Your task to perform on an android device: turn on airplane mode Image 0: 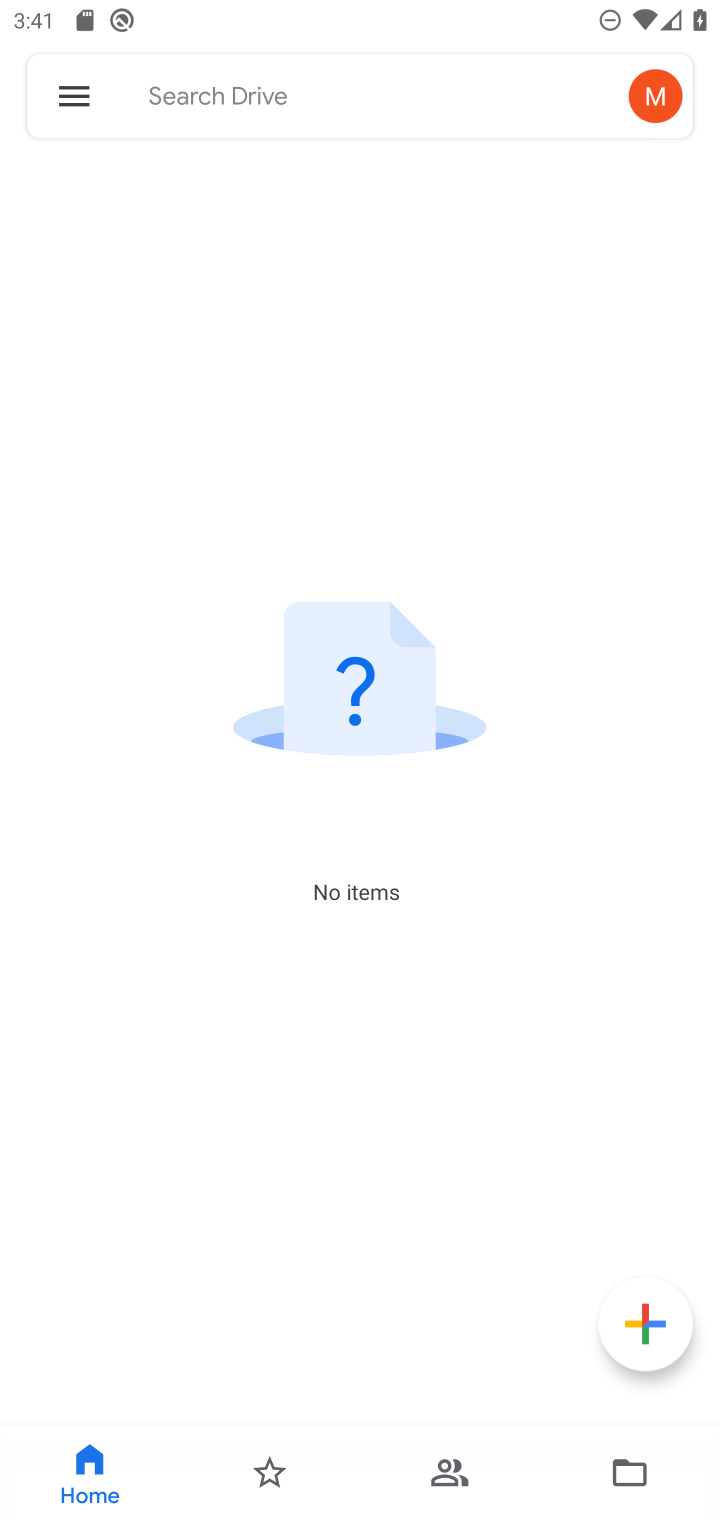
Step 0: press home button
Your task to perform on an android device: turn on airplane mode Image 1: 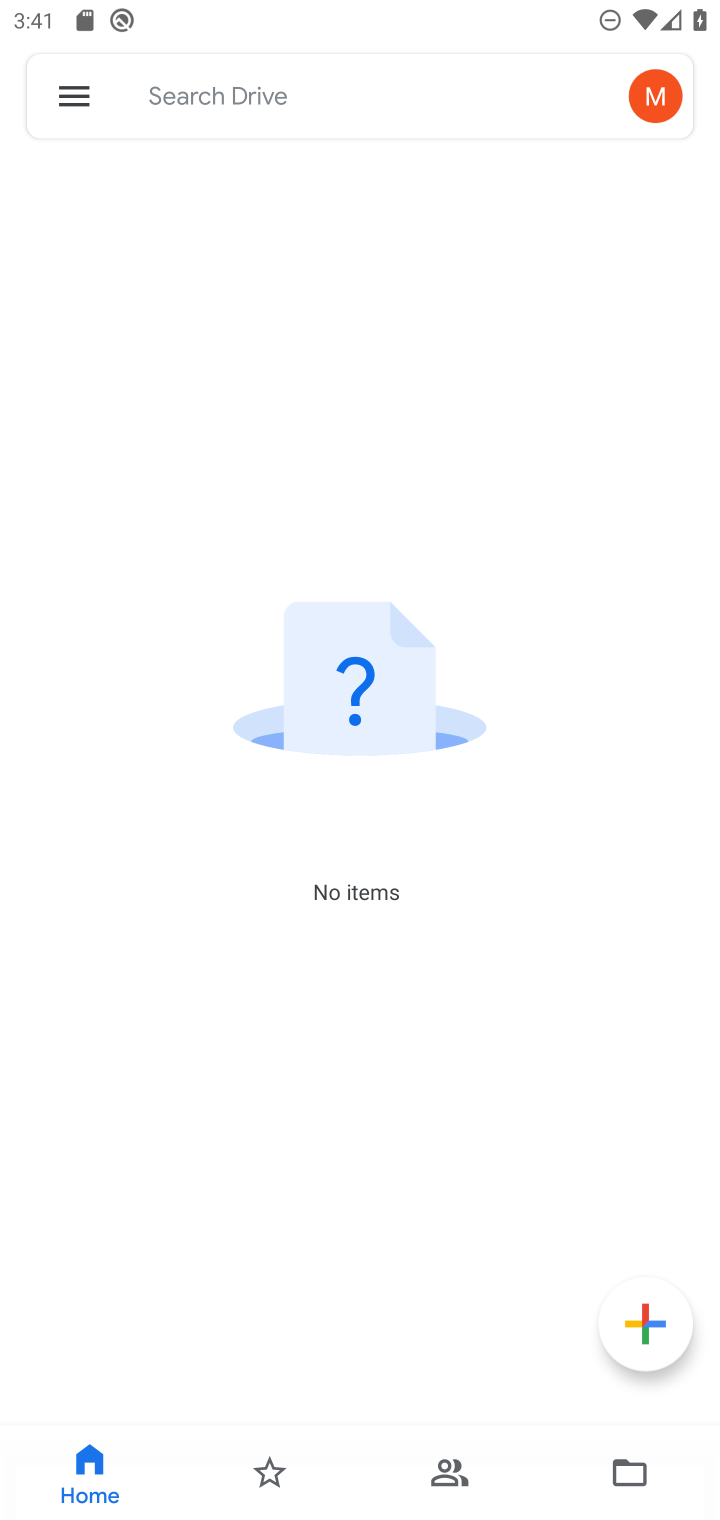
Step 1: press home button
Your task to perform on an android device: turn on airplane mode Image 2: 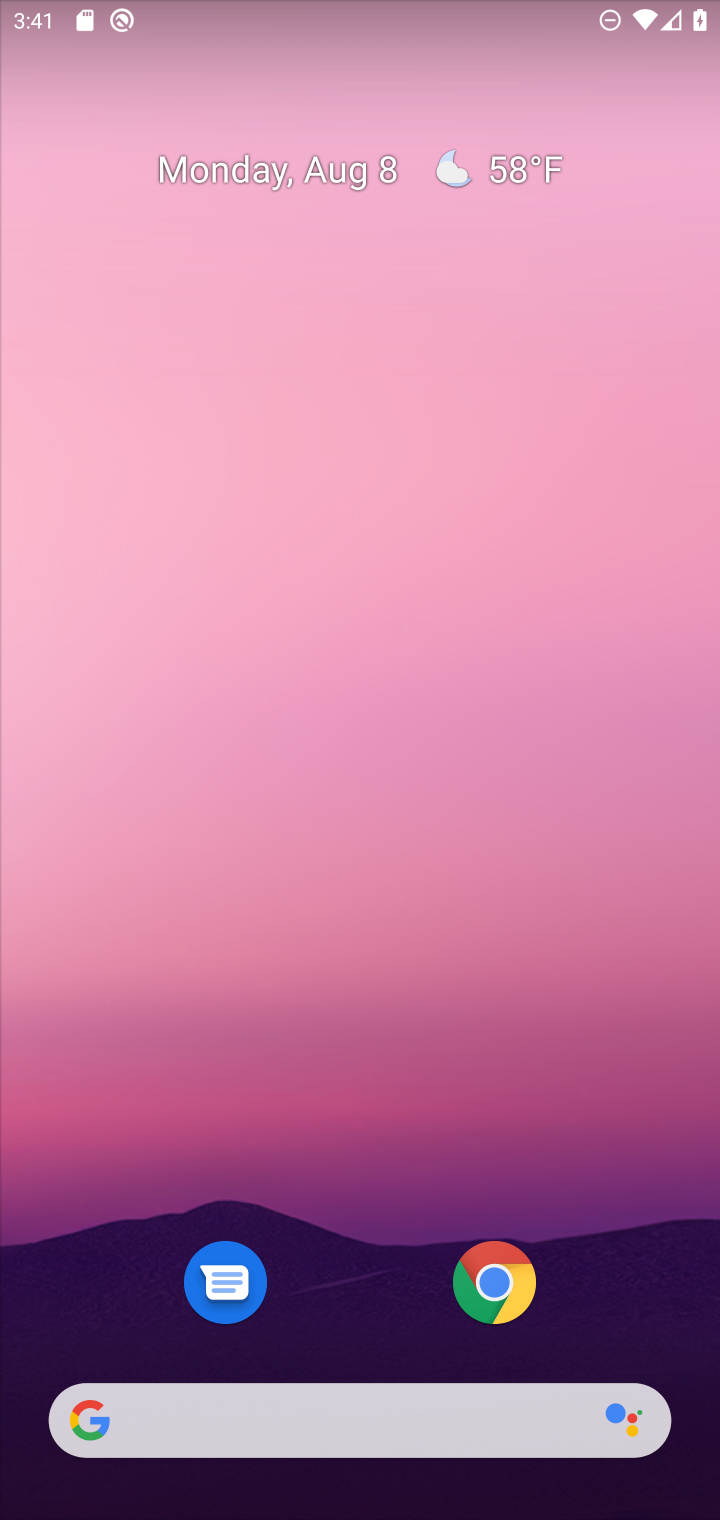
Step 2: drag from (384, 1233) to (597, 58)
Your task to perform on an android device: turn on airplane mode Image 3: 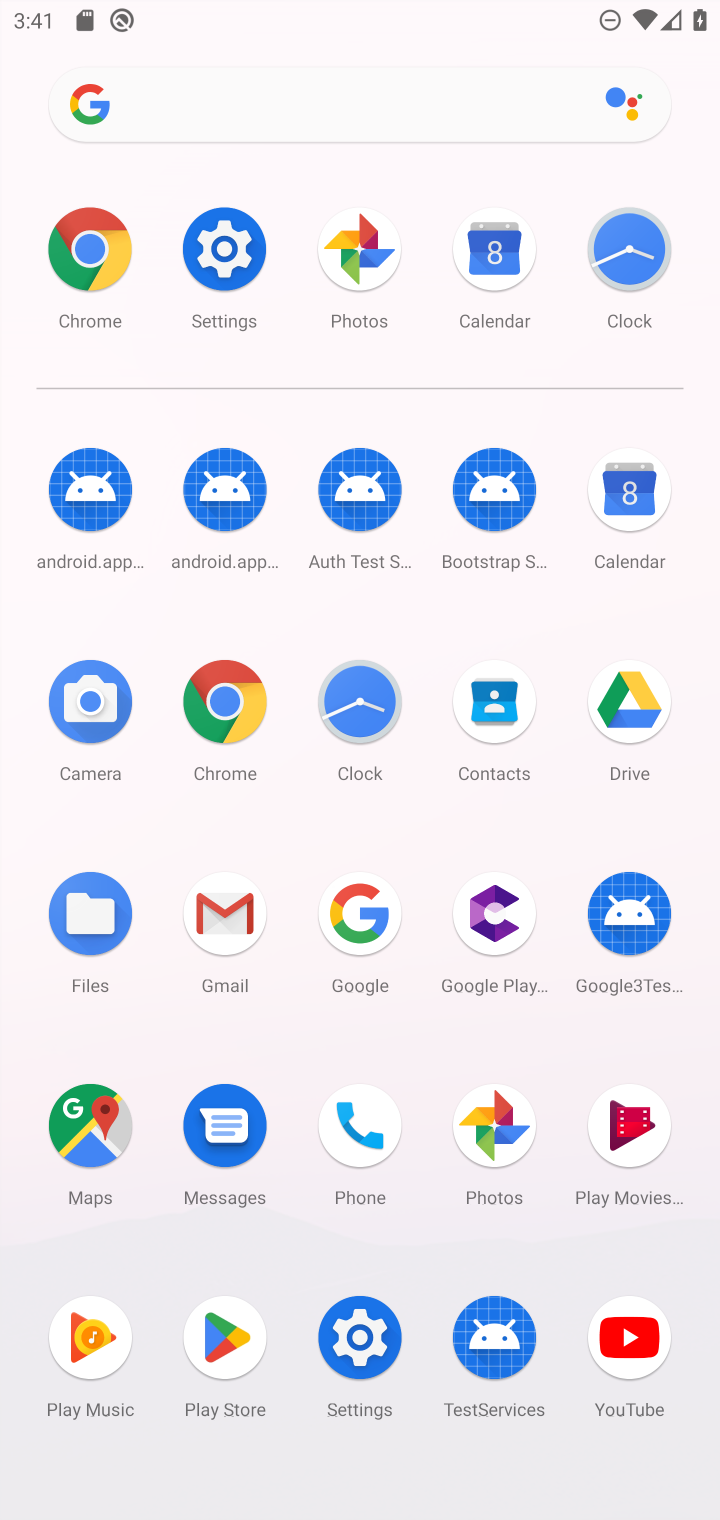
Step 3: click (356, 1345)
Your task to perform on an android device: turn on airplane mode Image 4: 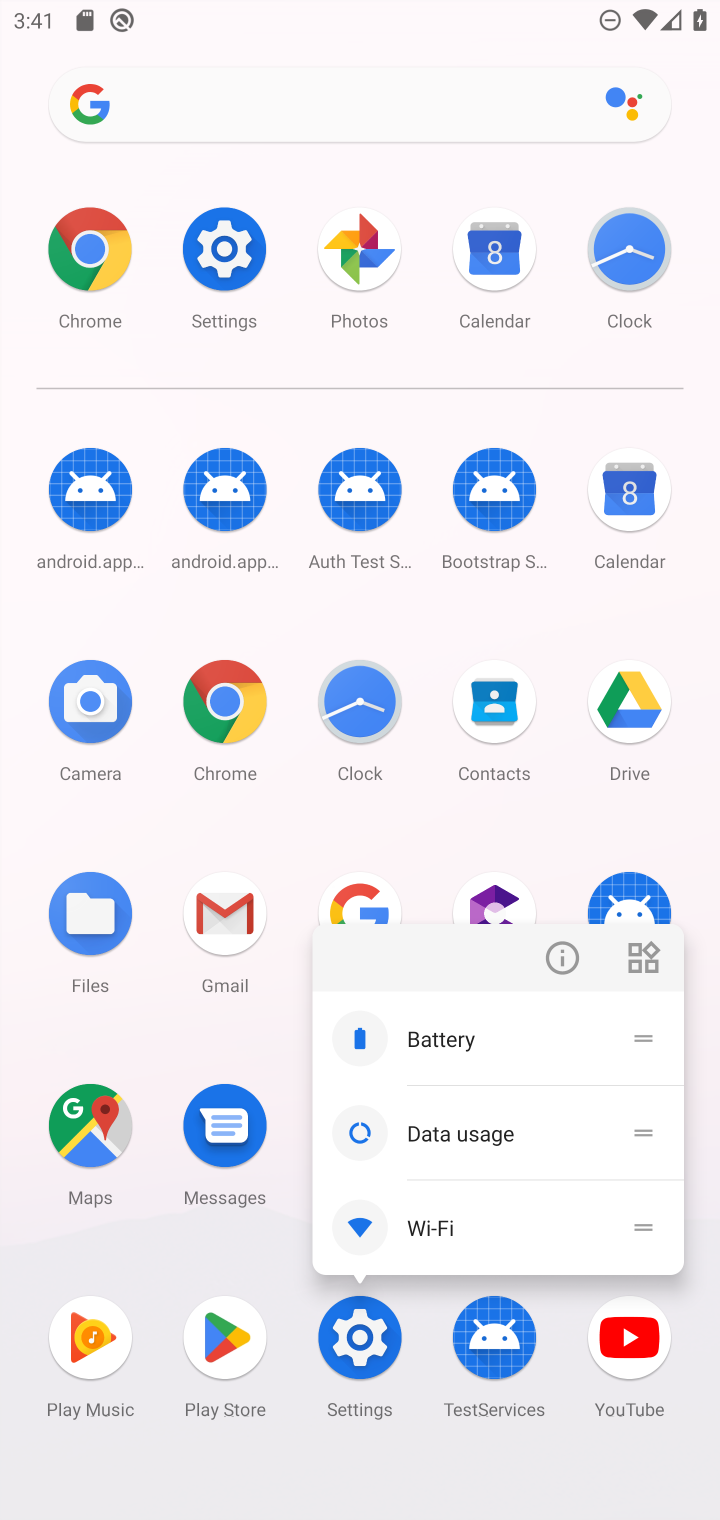
Step 4: click (363, 1302)
Your task to perform on an android device: turn on airplane mode Image 5: 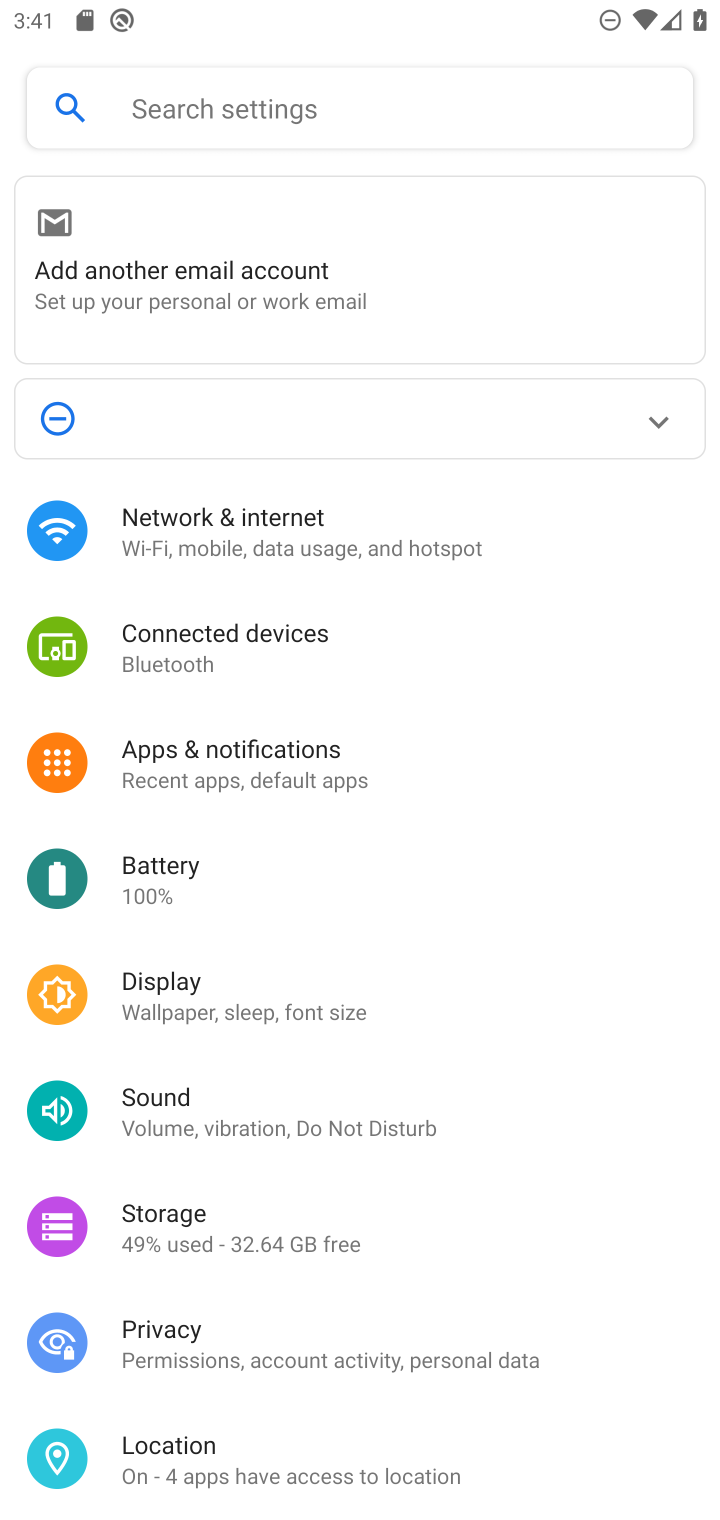
Step 5: click (196, 511)
Your task to perform on an android device: turn on airplane mode Image 6: 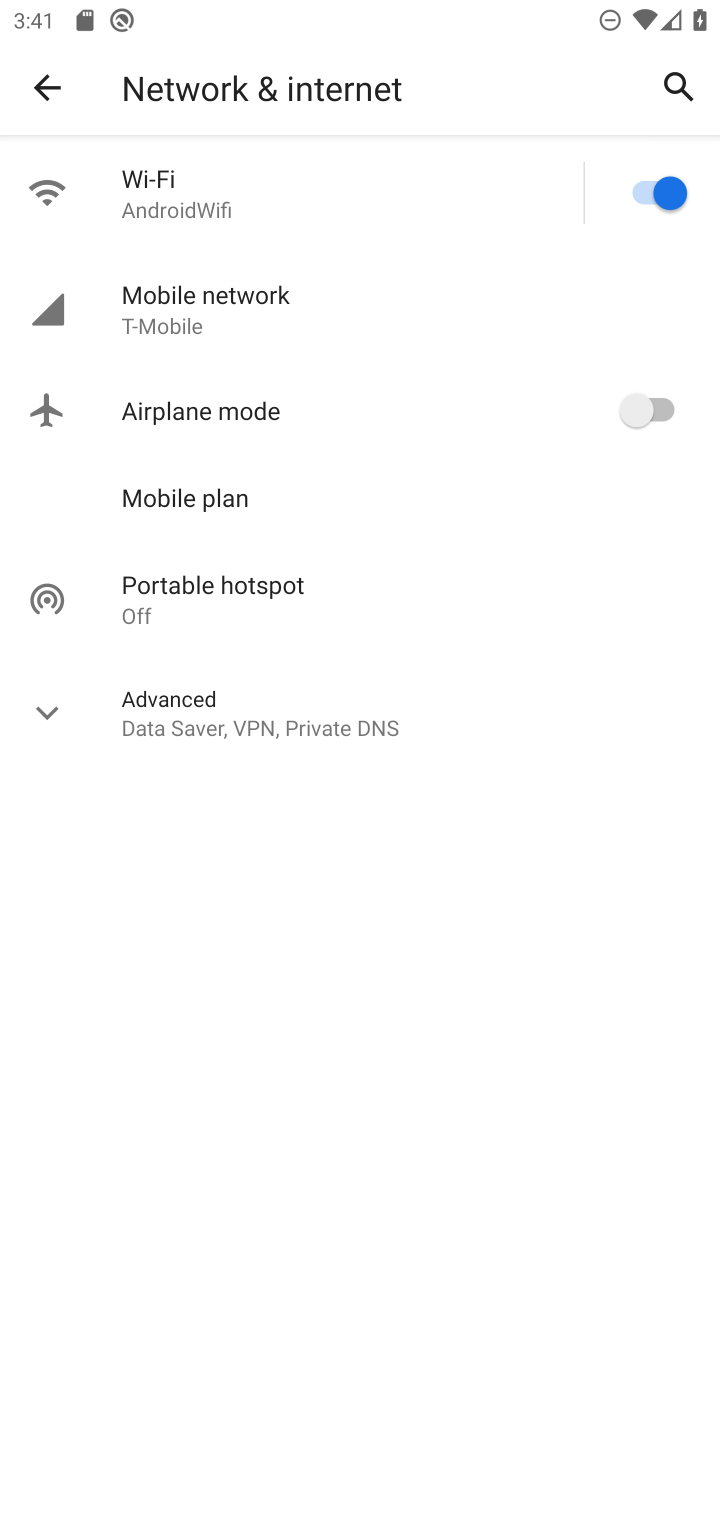
Step 6: click (662, 395)
Your task to perform on an android device: turn on airplane mode Image 7: 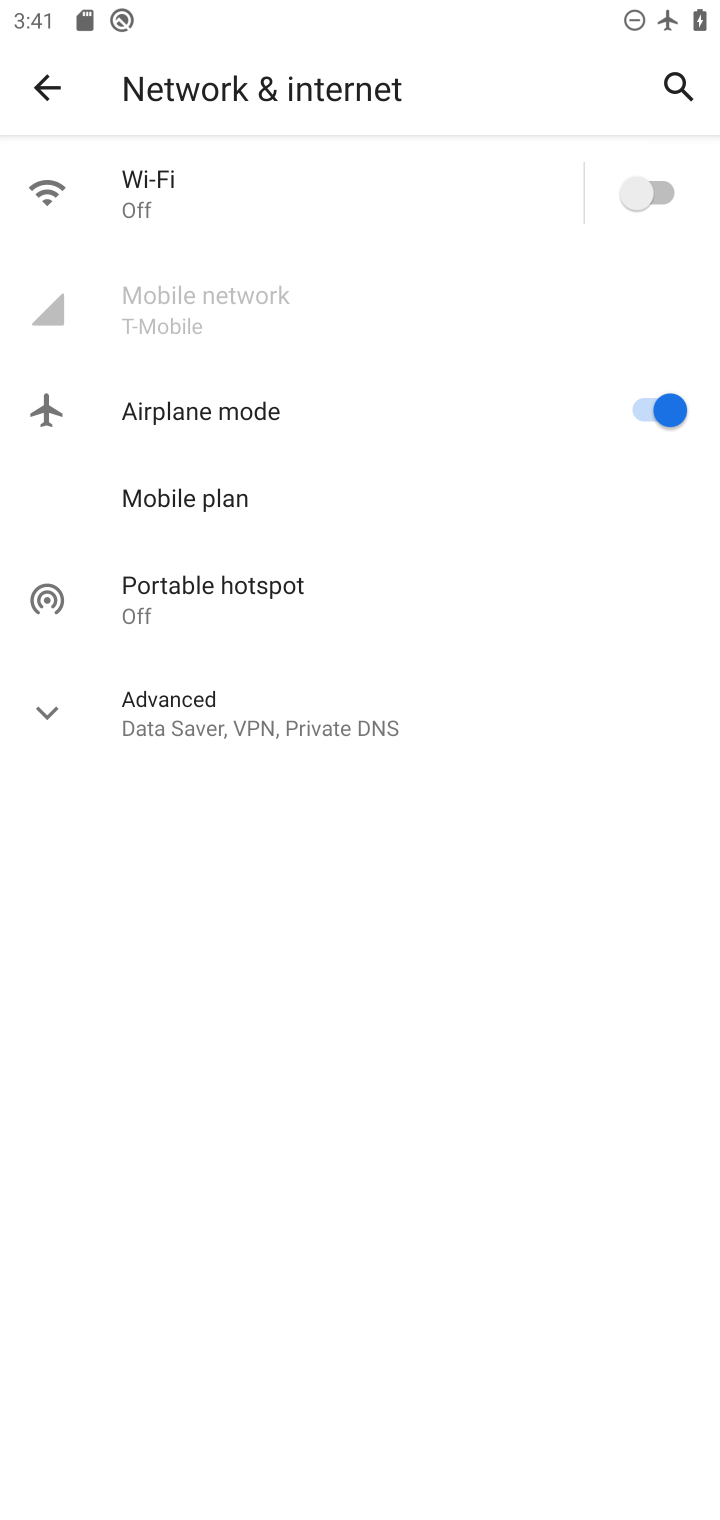
Step 7: task complete